Your task to perform on an android device: Open Chrome and go to settings Image 0: 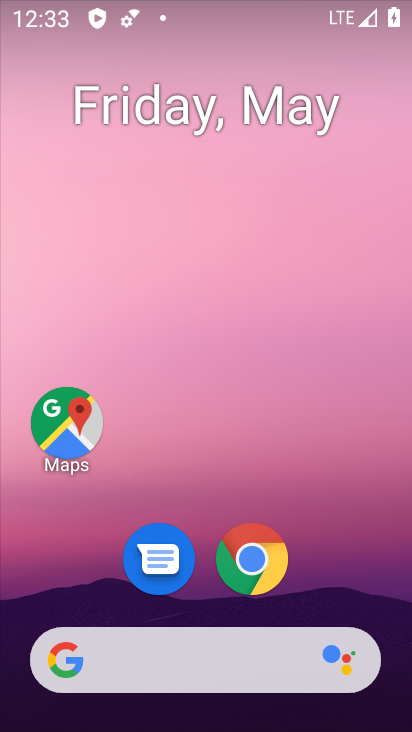
Step 0: click (254, 558)
Your task to perform on an android device: Open Chrome and go to settings Image 1: 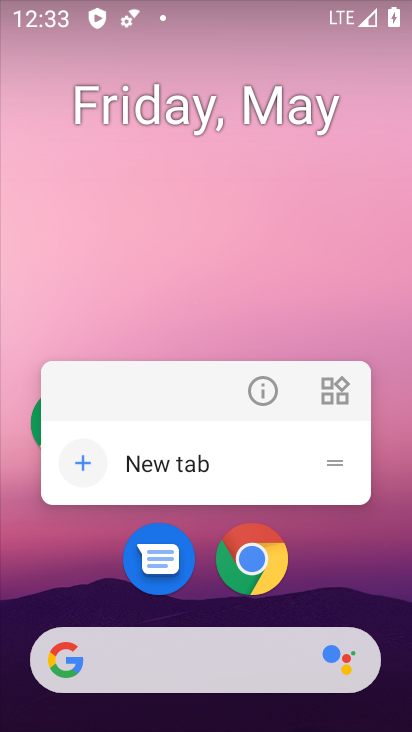
Step 1: click (254, 558)
Your task to perform on an android device: Open Chrome and go to settings Image 2: 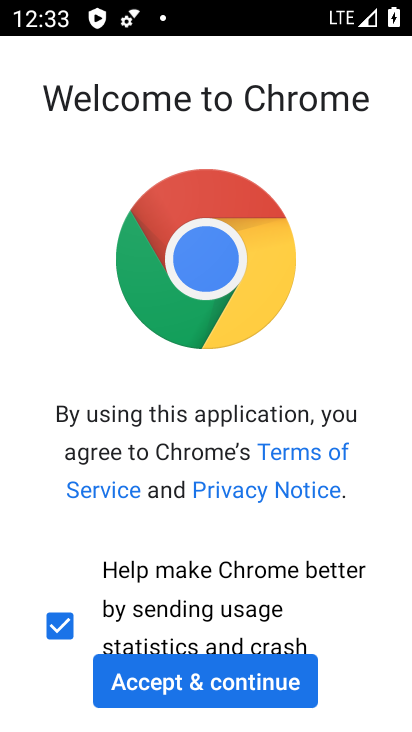
Step 2: click (182, 695)
Your task to perform on an android device: Open Chrome and go to settings Image 3: 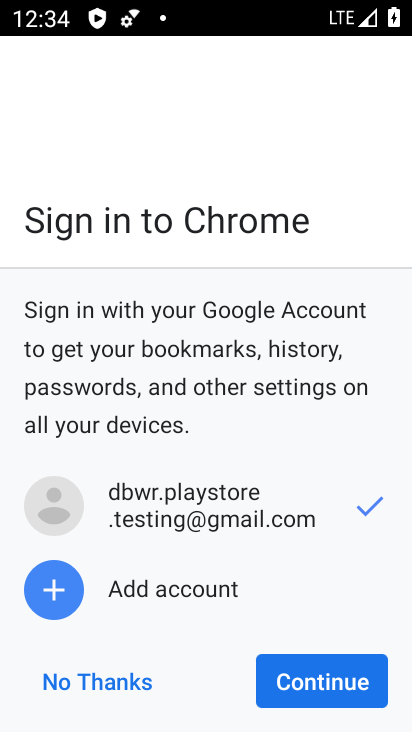
Step 3: click (314, 673)
Your task to perform on an android device: Open Chrome and go to settings Image 4: 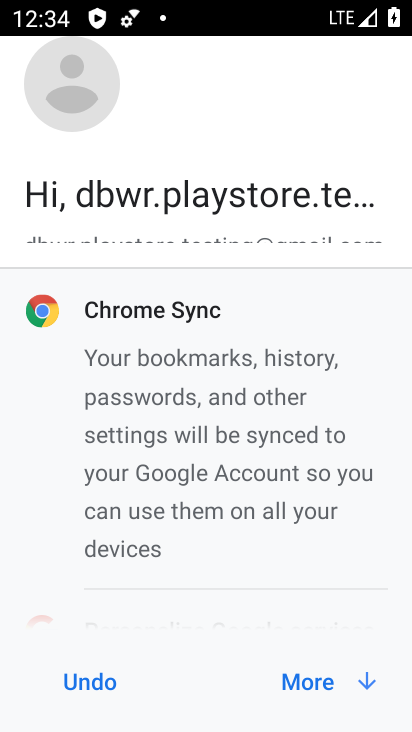
Step 4: click (314, 673)
Your task to perform on an android device: Open Chrome and go to settings Image 5: 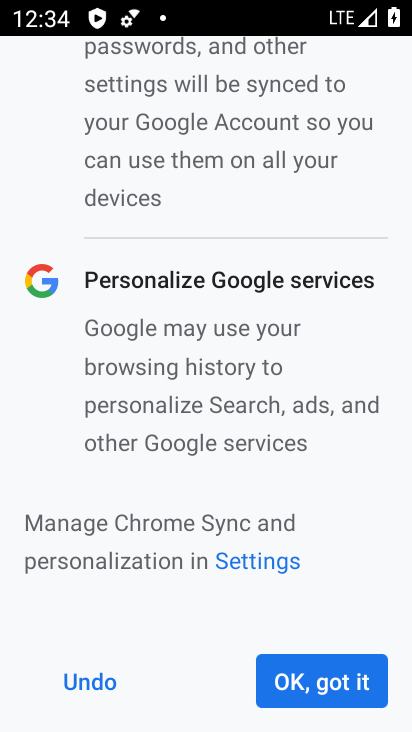
Step 5: click (314, 673)
Your task to perform on an android device: Open Chrome and go to settings Image 6: 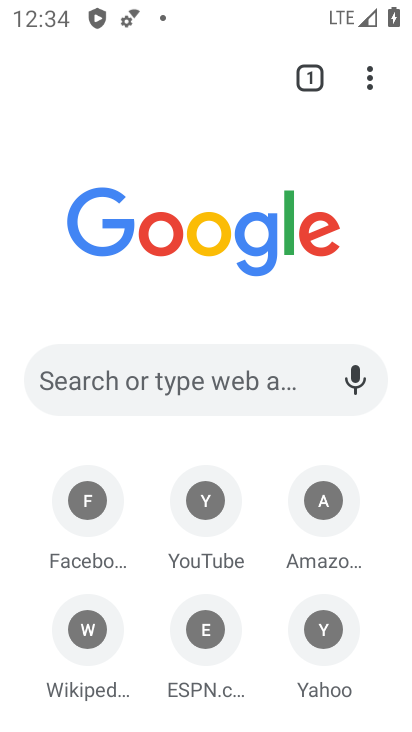
Step 6: task complete